Your task to perform on an android device: When is my next appointment? Image 0: 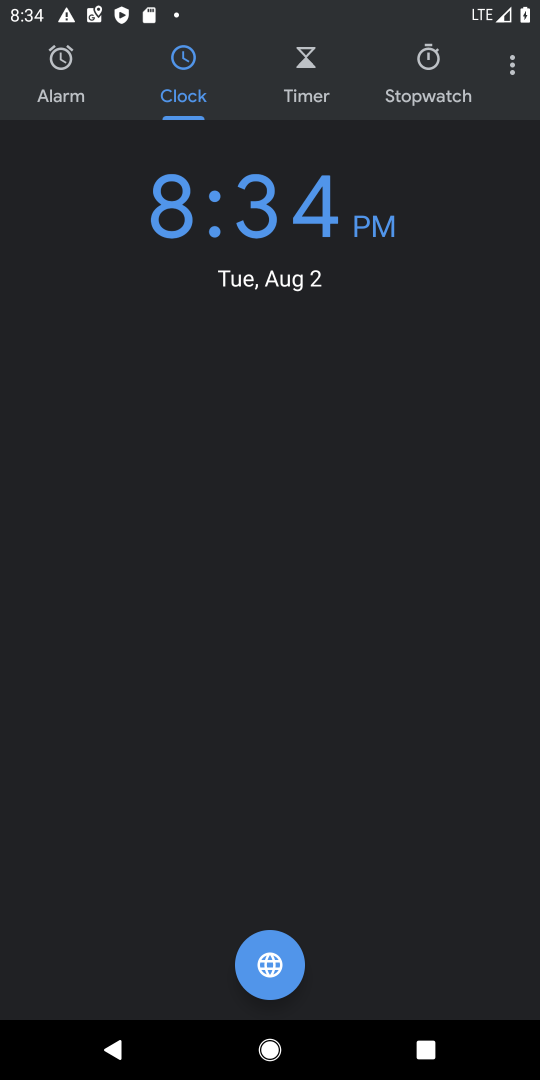
Step 0: press home button
Your task to perform on an android device: When is my next appointment? Image 1: 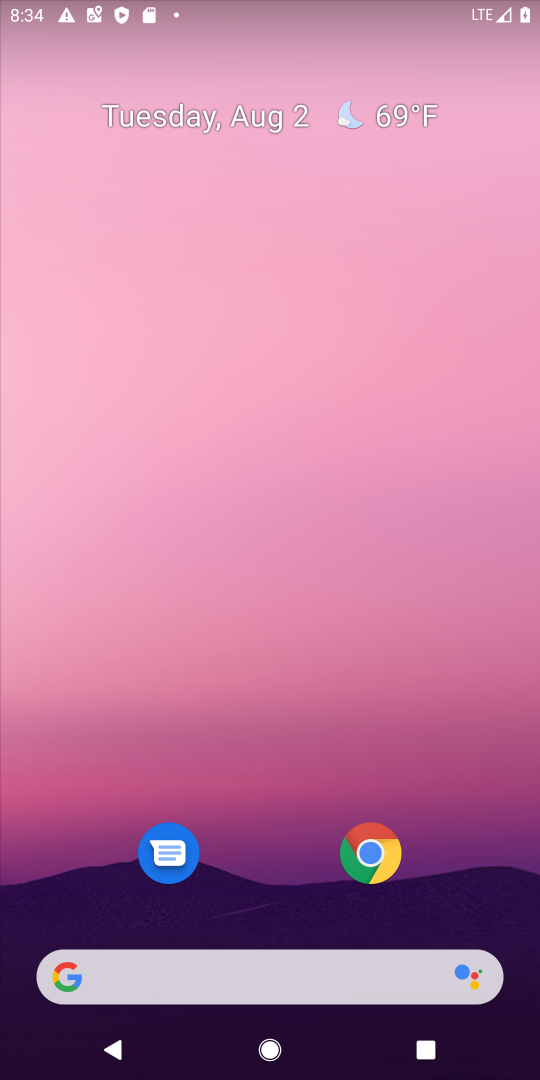
Step 1: drag from (261, 877) to (183, 89)
Your task to perform on an android device: When is my next appointment? Image 2: 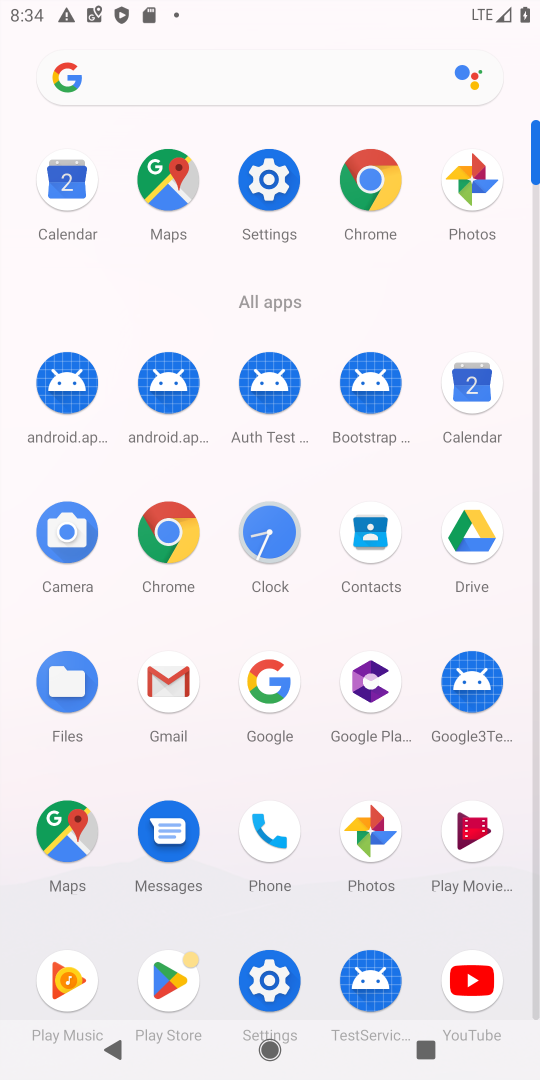
Step 2: click (475, 379)
Your task to perform on an android device: When is my next appointment? Image 3: 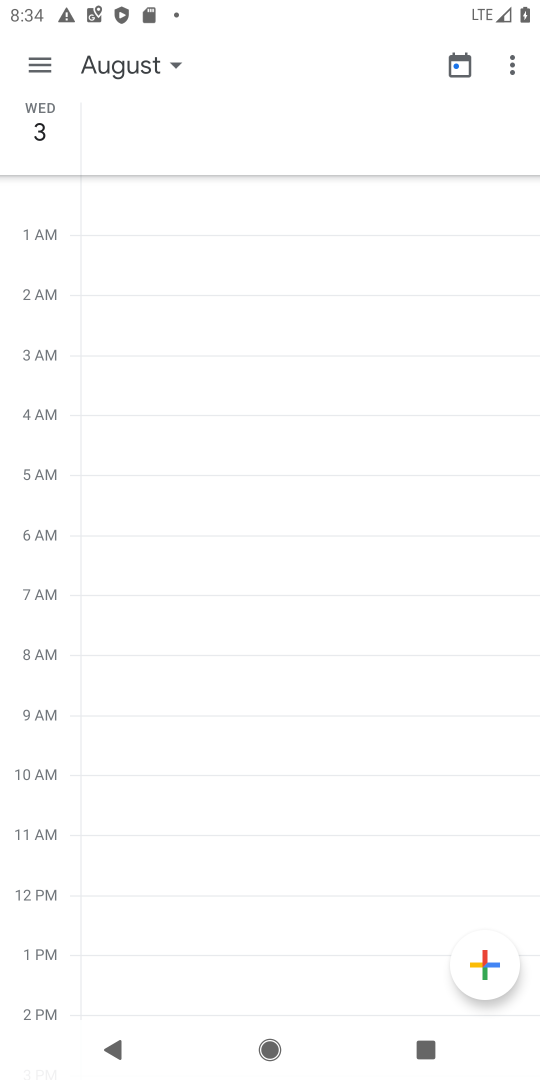
Step 3: click (90, 68)
Your task to perform on an android device: When is my next appointment? Image 4: 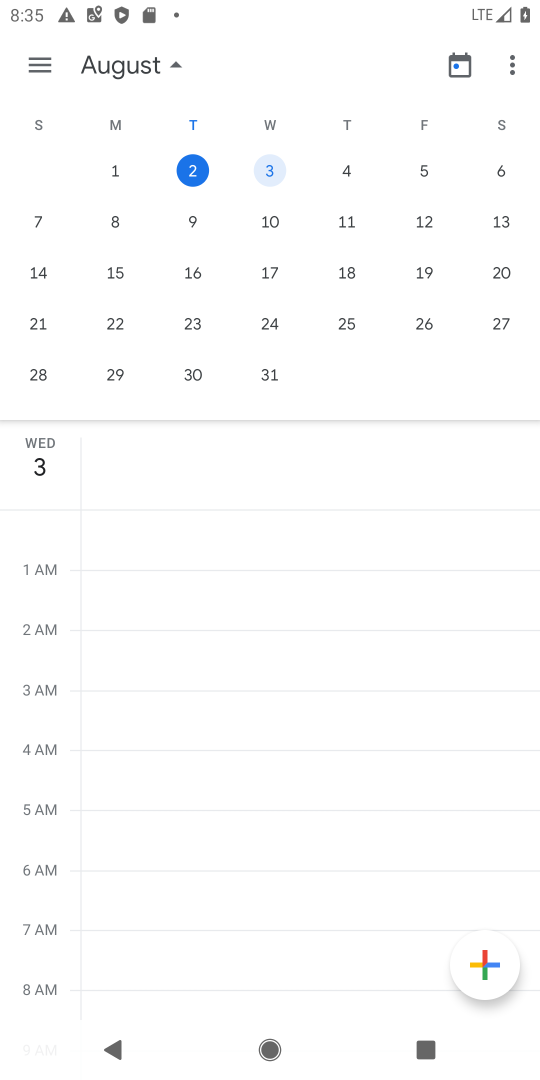
Step 4: click (35, 66)
Your task to perform on an android device: When is my next appointment? Image 5: 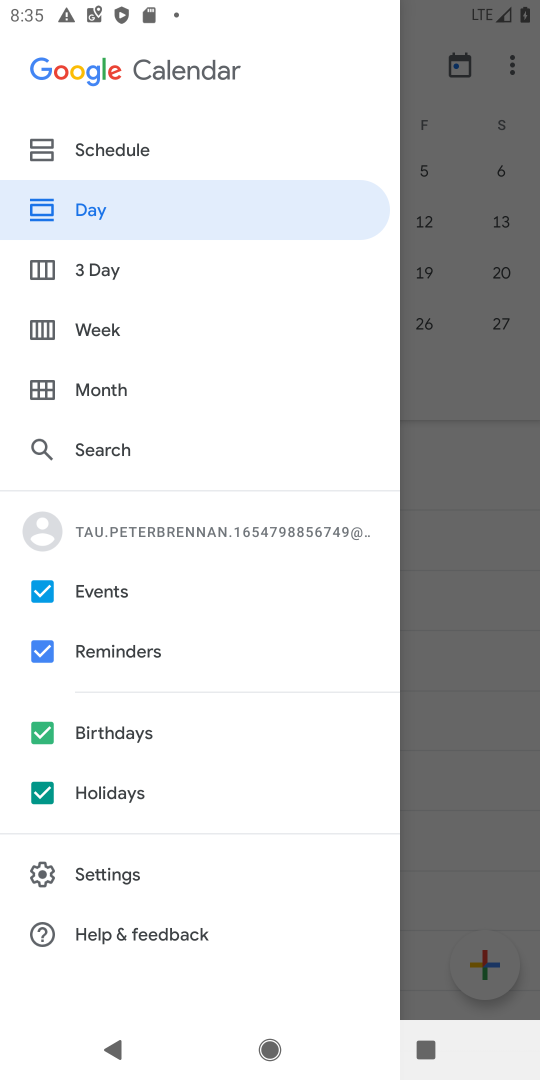
Step 5: click (80, 390)
Your task to perform on an android device: When is my next appointment? Image 6: 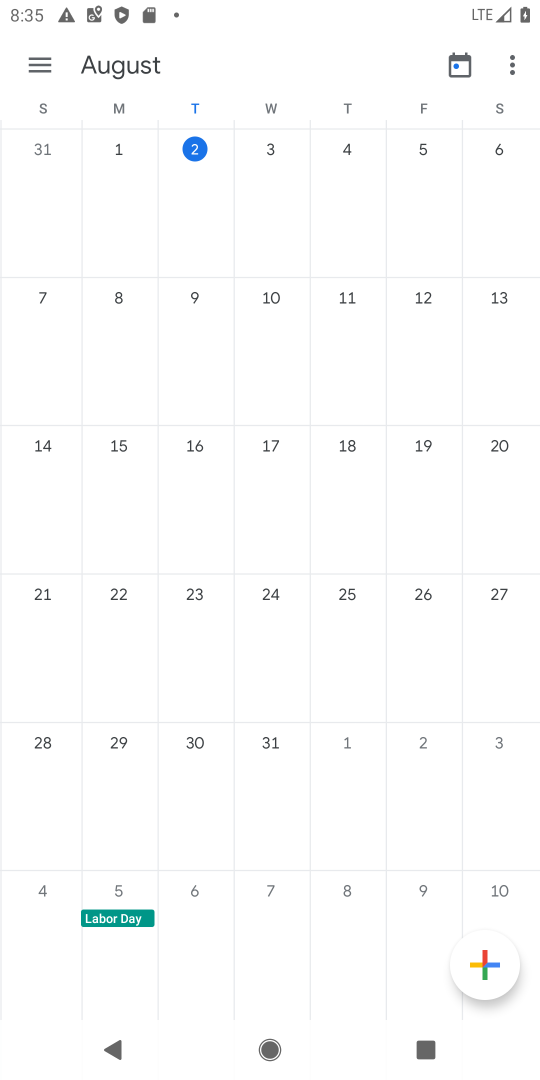
Step 6: click (37, 63)
Your task to perform on an android device: When is my next appointment? Image 7: 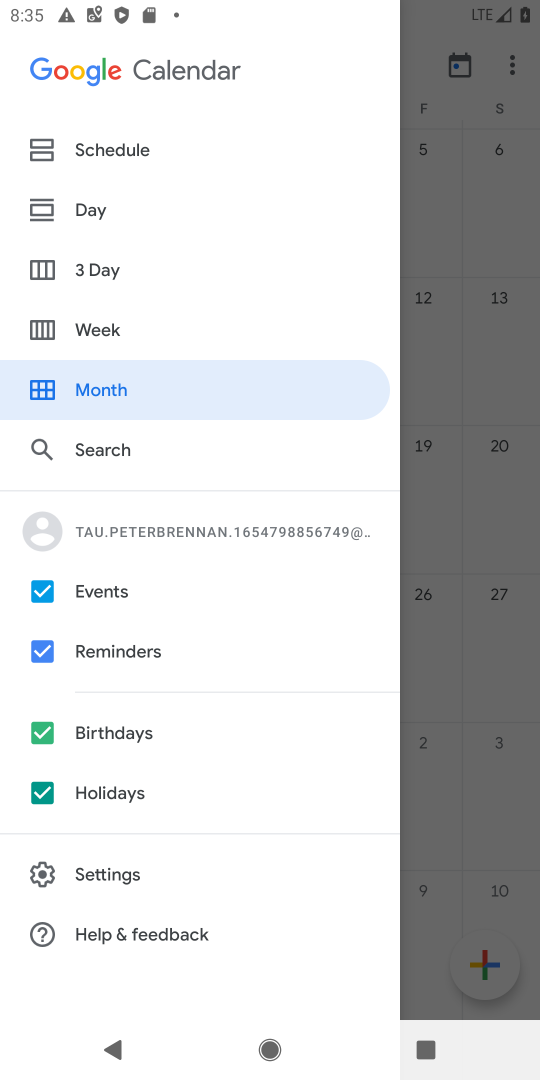
Step 7: click (71, 152)
Your task to perform on an android device: When is my next appointment? Image 8: 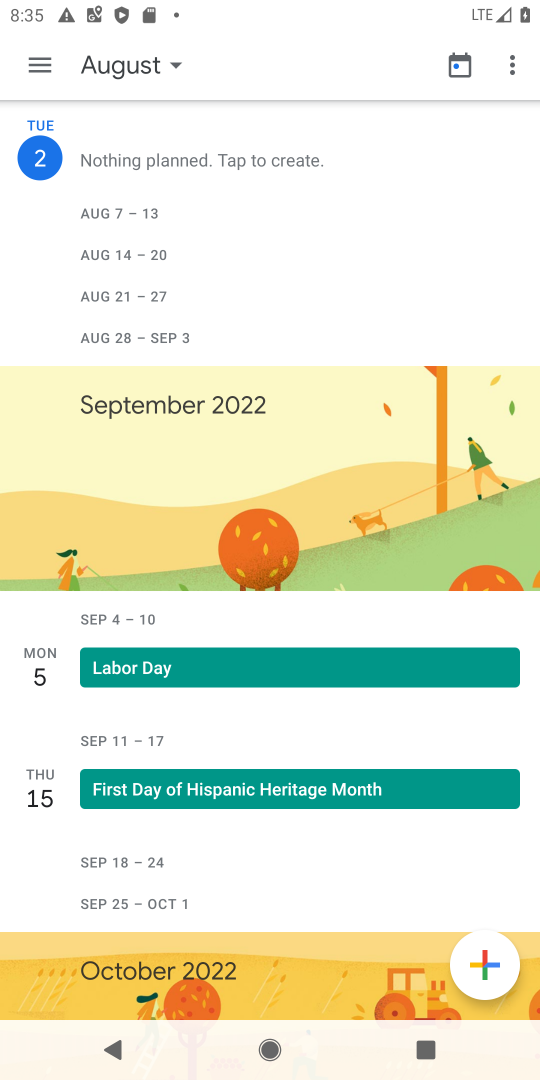
Step 8: task complete